Your task to perform on an android device: turn on showing notifications on the lock screen Image 0: 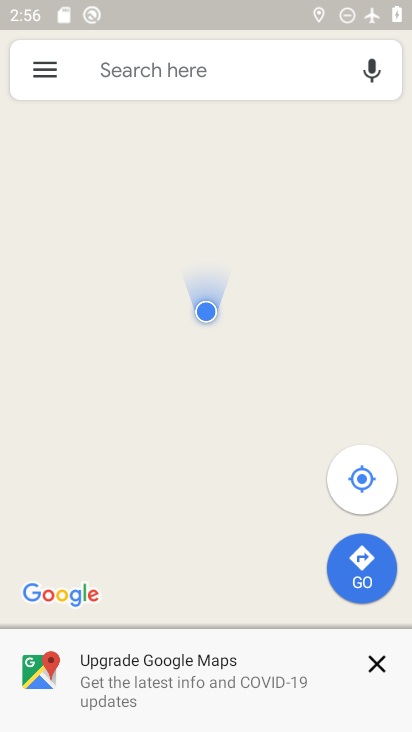
Step 0: press home button
Your task to perform on an android device: turn on showing notifications on the lock screen Image 1: 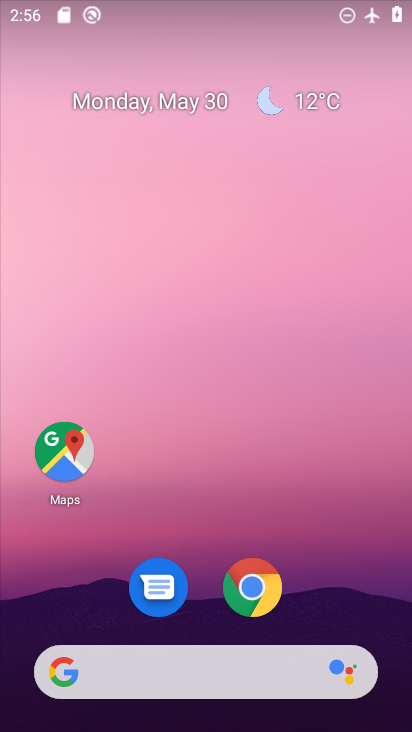
Step 1: drag from (205, 591) to (216, 173)
Your task to perform on an android device: turn on showing notifications on the lock screen Image 2: 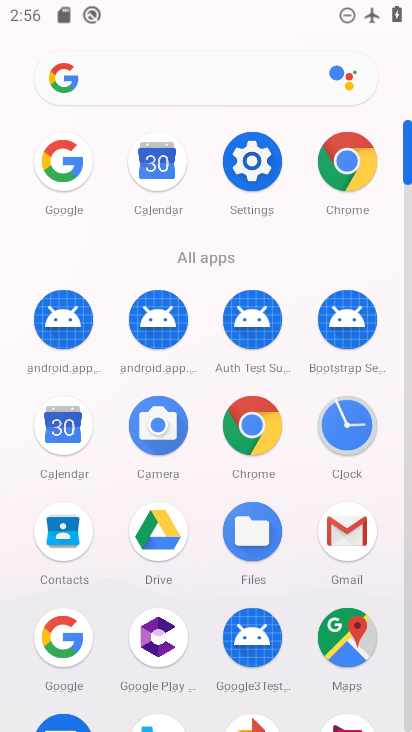
Step 2: click (253, 154)
Your task to perform on an android device: turn on showing notifications on the lock screen Image 3: 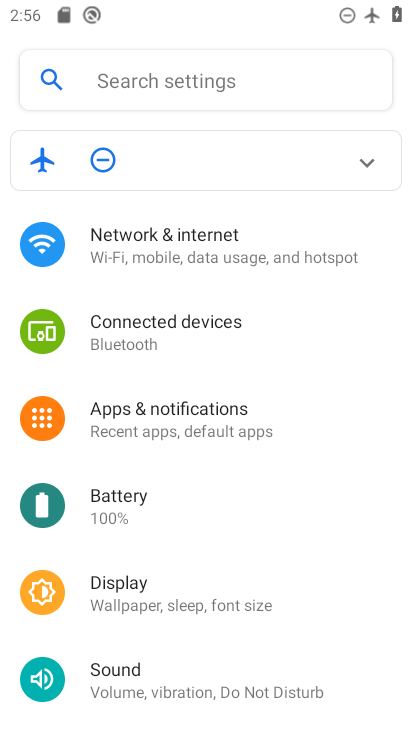
Step 3: click (175, 419)
Your task to perform on an android device: turn on showing notifications on the lock screen Image 4: 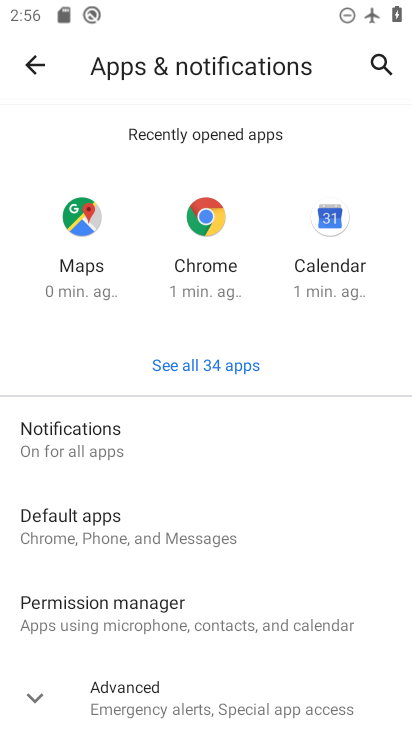
Step 4: click (74, 443)
Your task to perform on an android device: turn on showing notifications on the lock screen Image 5: 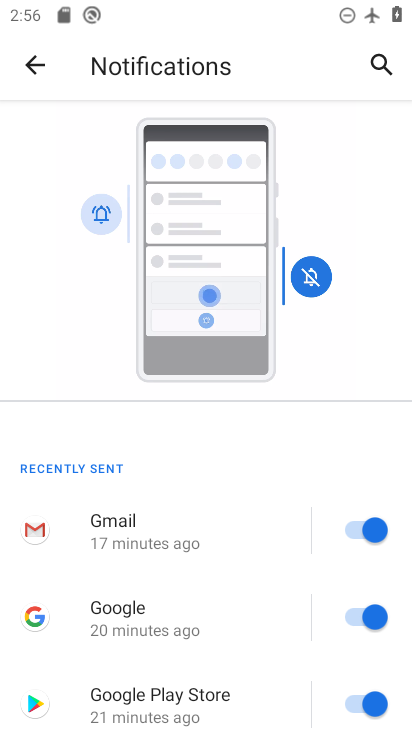
Step 5: drag from (151, 606) to (213, 225)
Your task to perform on an android device: turn on showing notifications on the lock screen Image 6: 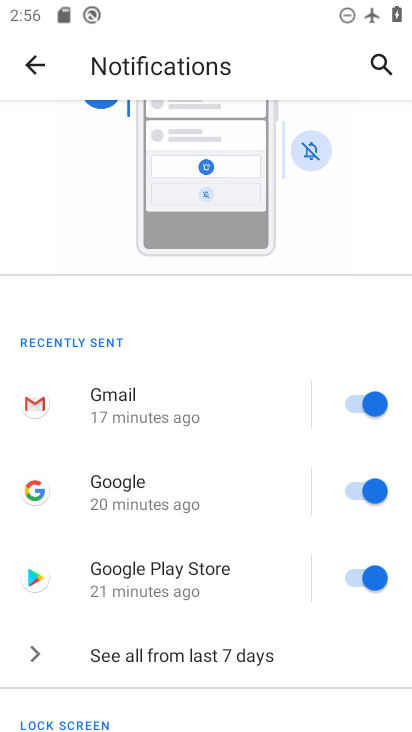
Step 6: drag from (173, 648) to (240, 267)
Your task to perform on an android device: turn on showing notifications on the lock screen Image 7: 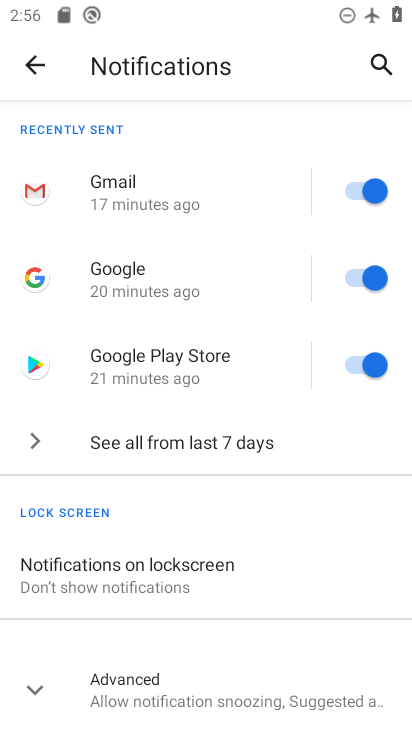
Step 7: click (135, 584)
Your task to perform on an android device: turn on showing notifications on the lock screen Image 8: 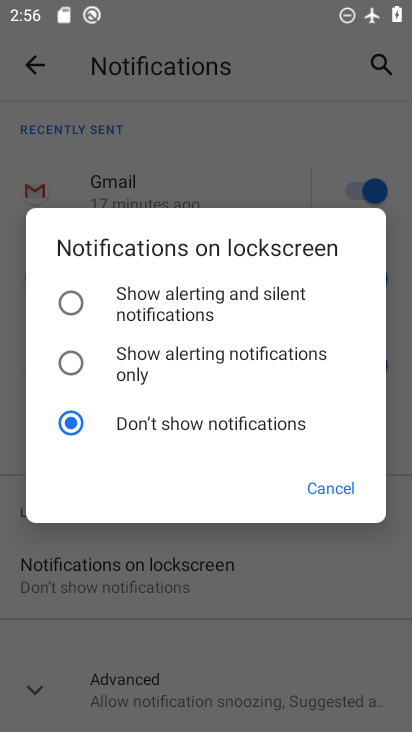
Step 8: click (145, 296)
Your task to perform on an android device: turn on showing notifications on the lock screen Image 9: 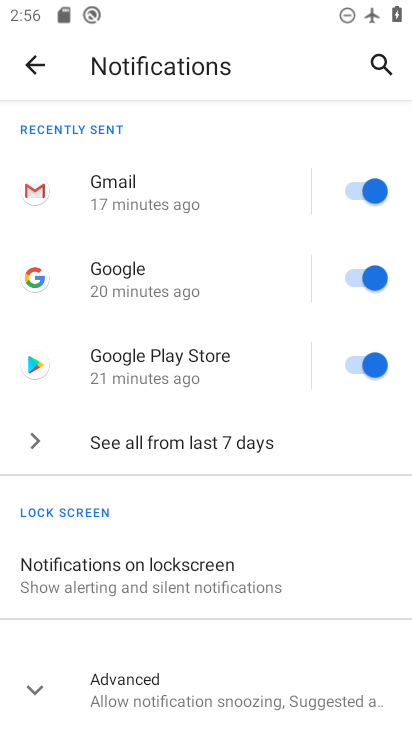
Step 9: task complete